Your task to perform on an android device: Go to internet settings Image 0: 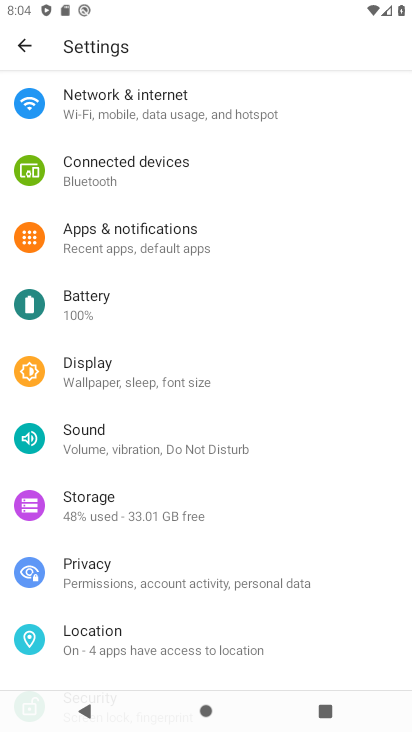
Step 0: click (71, 102)
Your task to perform on an android device: Go to internet settings Image 1: 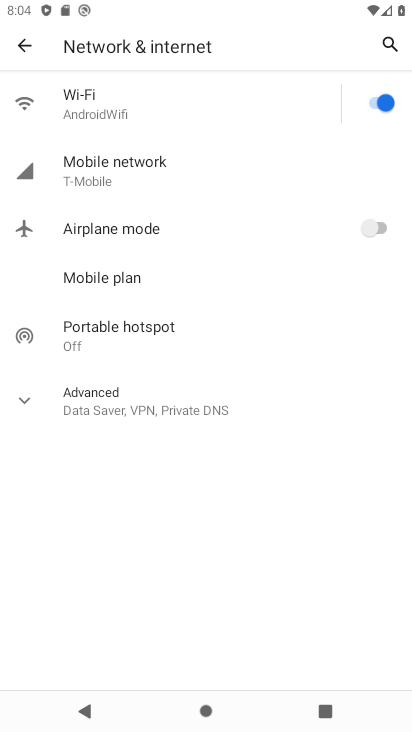
Step 1: click (90, 391)
Your task to perform on an android device: Go to internet settings Image 2: 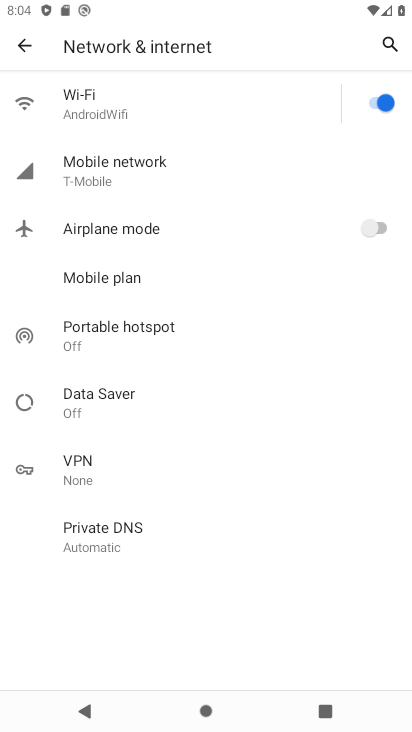
Step 2: click (83, 163)
Your task to perform on an android device: Go to internet settings Image 3: 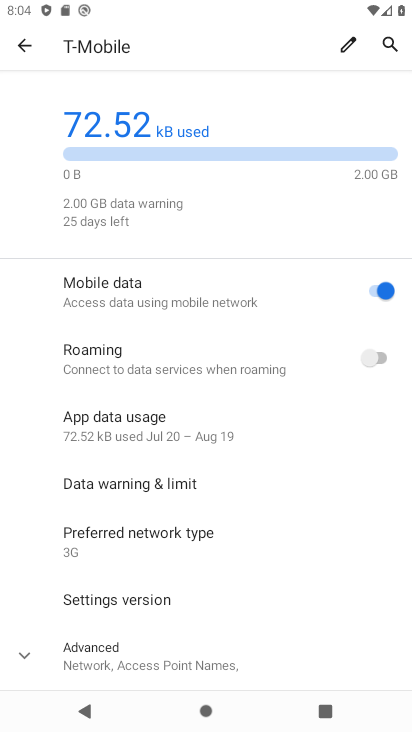
Step 3: click (126, 661)
Your task to perform on an android device: Go to internet settings Image 4: 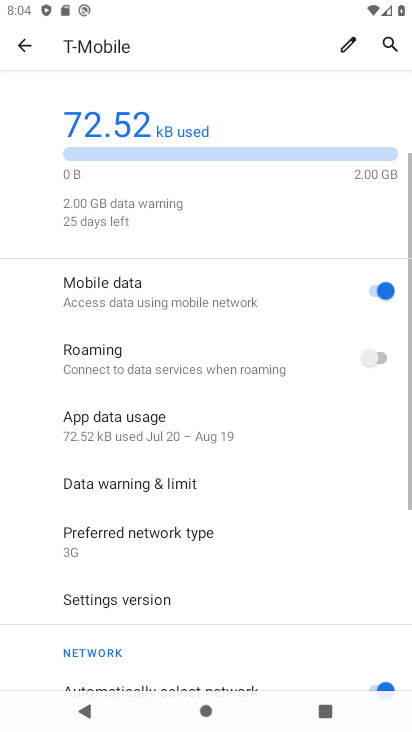
Step 4: task complete